Your task to perform on an android device: Open Google Chrome and open the bookmarks view Image 0: 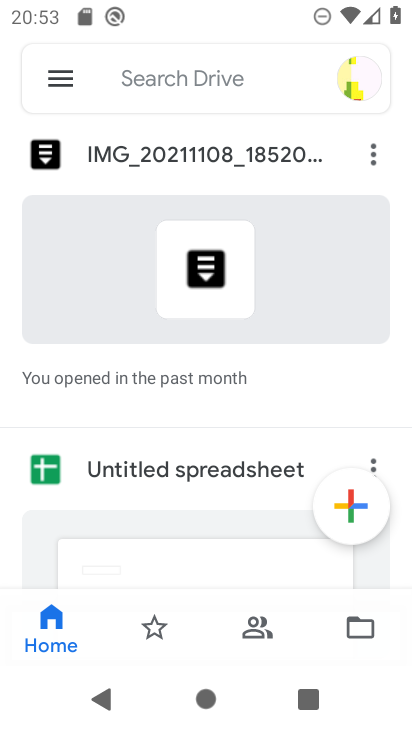
Step 0: press home button
Your task to perform on an android device: Open Google Chrome and open the bookmarks view Image 1: 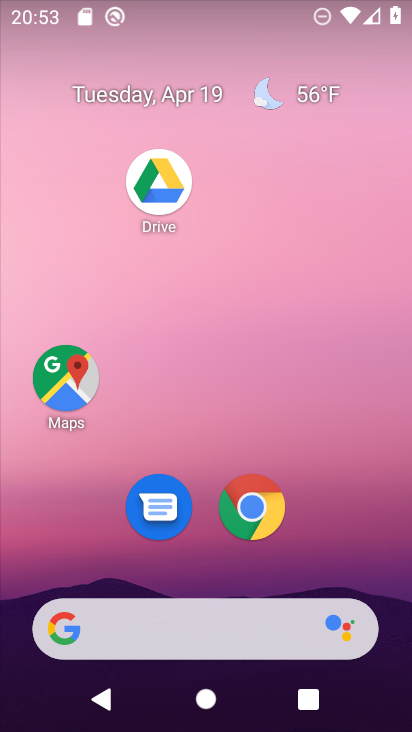
Step 1: click (261, 504)
Your task to perform on an android device: Open Google Chrome and open the bookmarks view Image 2: 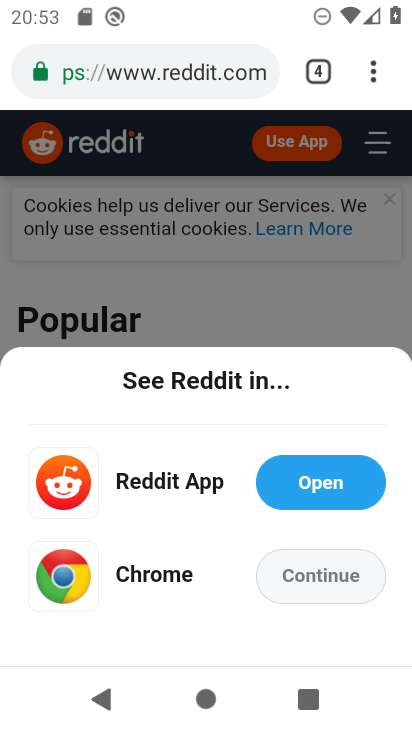
Step 2: task complete